Your task to perform on an android device: Open my contact list Image 0: 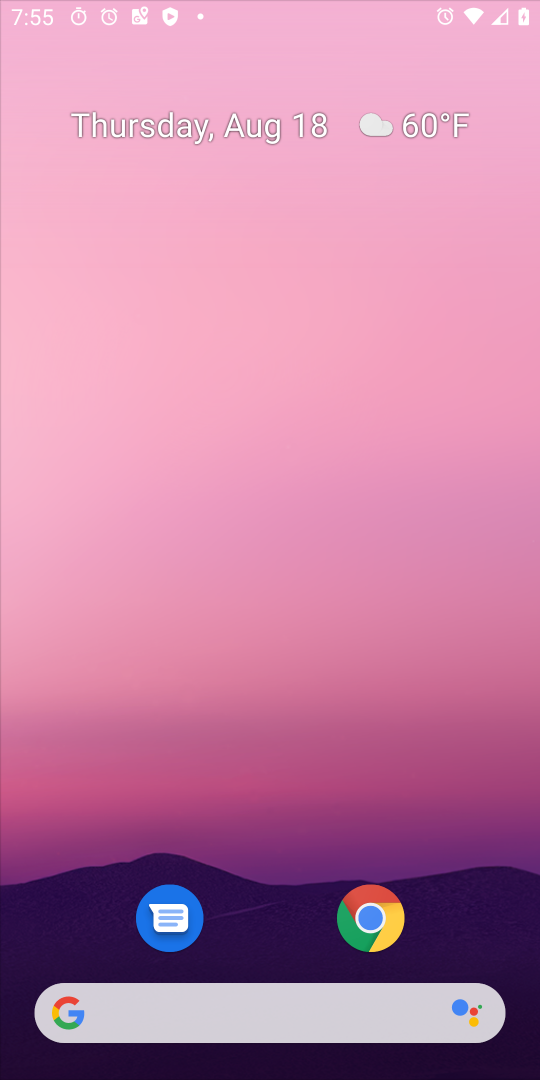
Step 0: press home button
Your task to perform on an android device: Open my contact list Image 1: 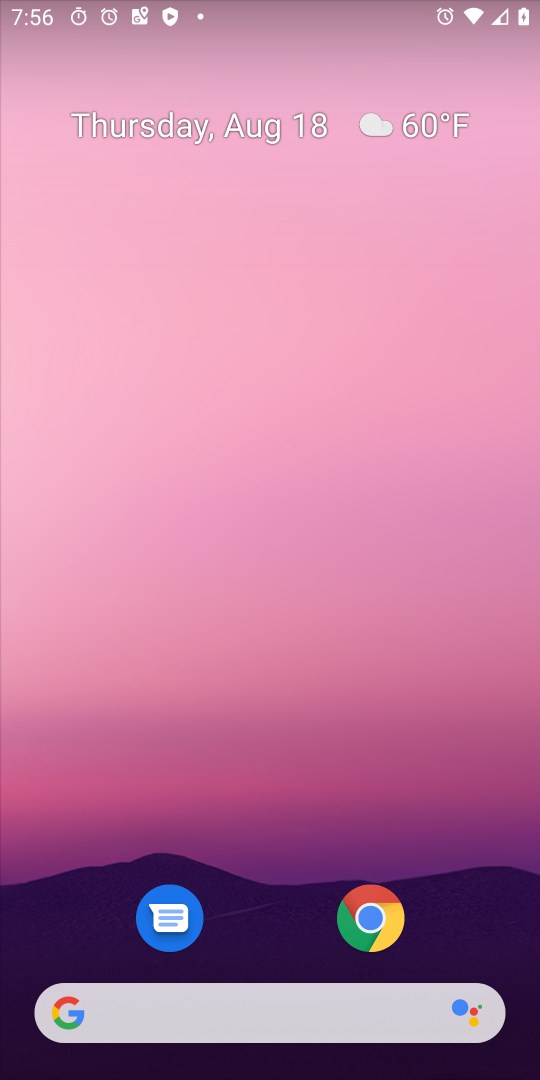
Step 1: drag from (296, 673) to (212, 9)
Your task to perform on an android device: Open my contact list Image 2: 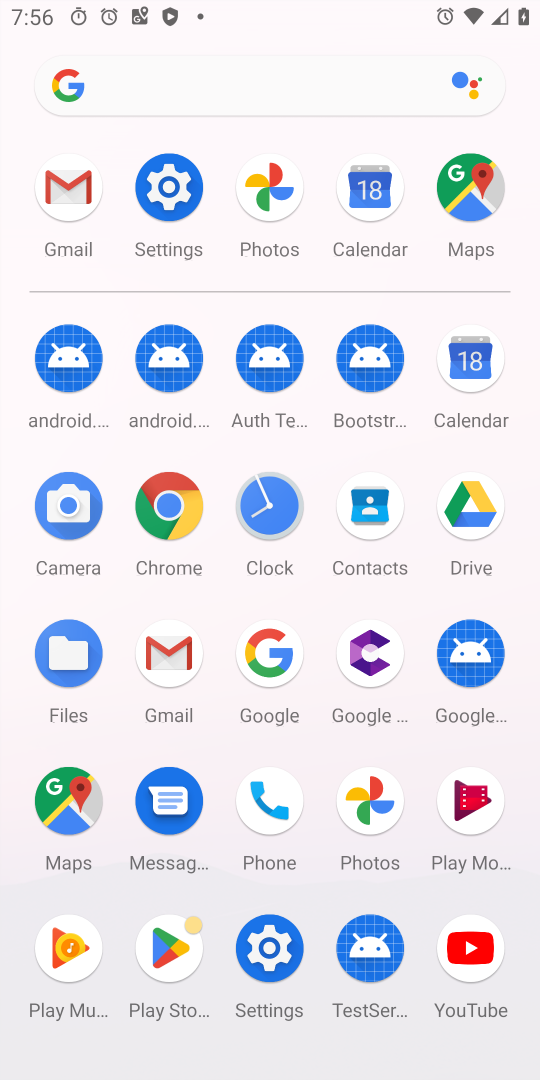
Step 2: click (376, 531)
Your task to perform on an android device: Open my contact list Image 3: 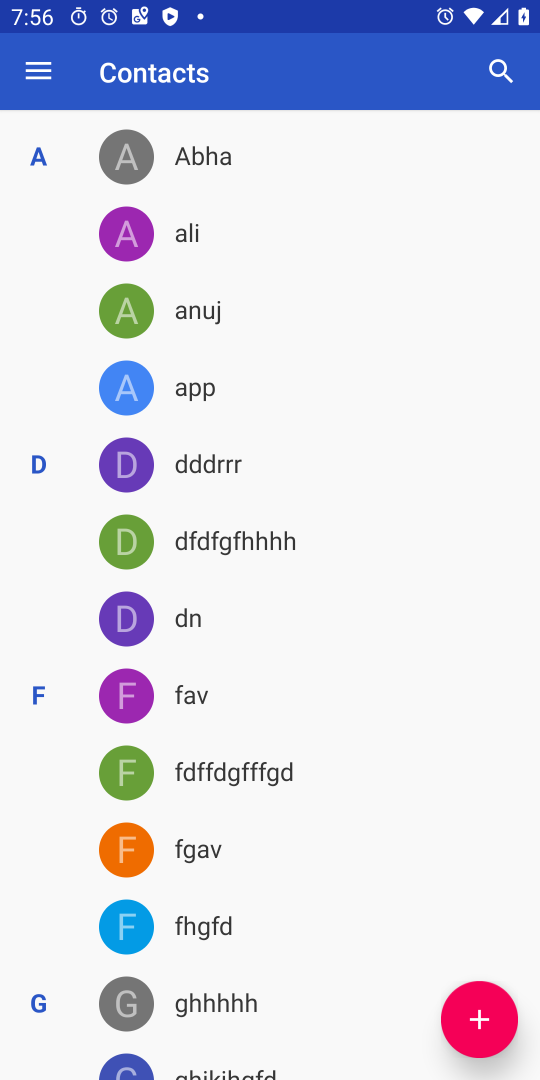
Step 3: task complete